Your task to perform on an android device: uninstall "Google Drive" Image 0: 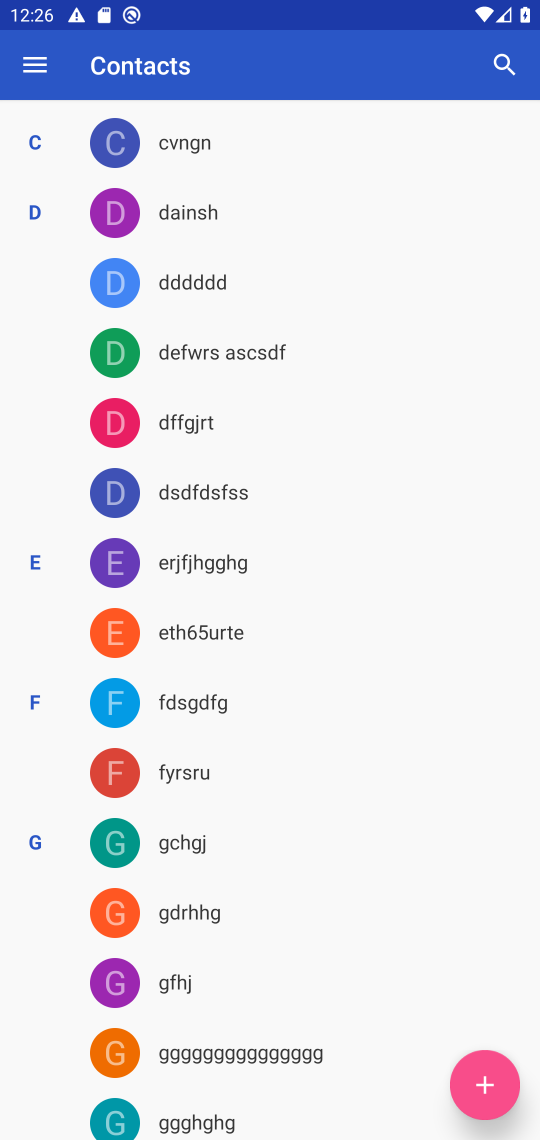
Step 0: press home button
Your task to perform on an android device: uninstall "Google Drive" Image 1: 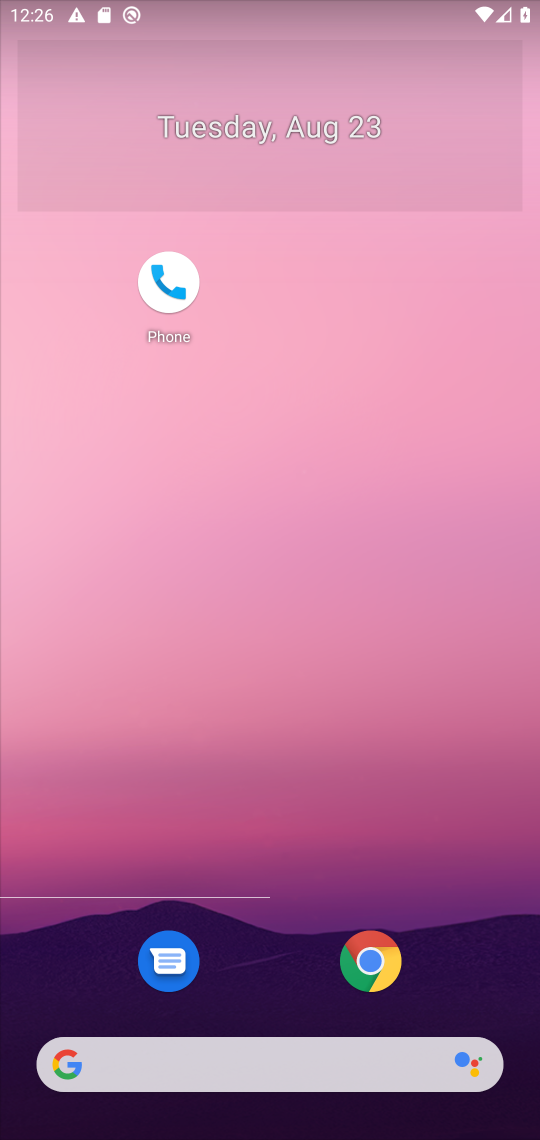
Step 1: drag from (247, 978) to (323, 254)
Your task to perform on an android device: uninstall "Google Drive" Image 2: 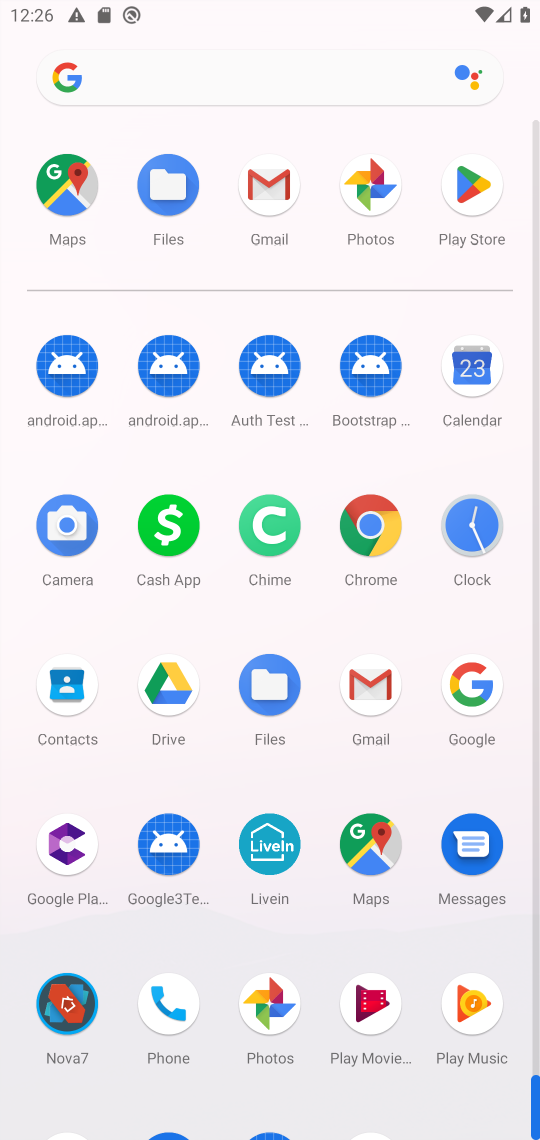
Step 2: click (182, 681)
Your task to perform on an android device: uninstall "Google Drive" Image 3: 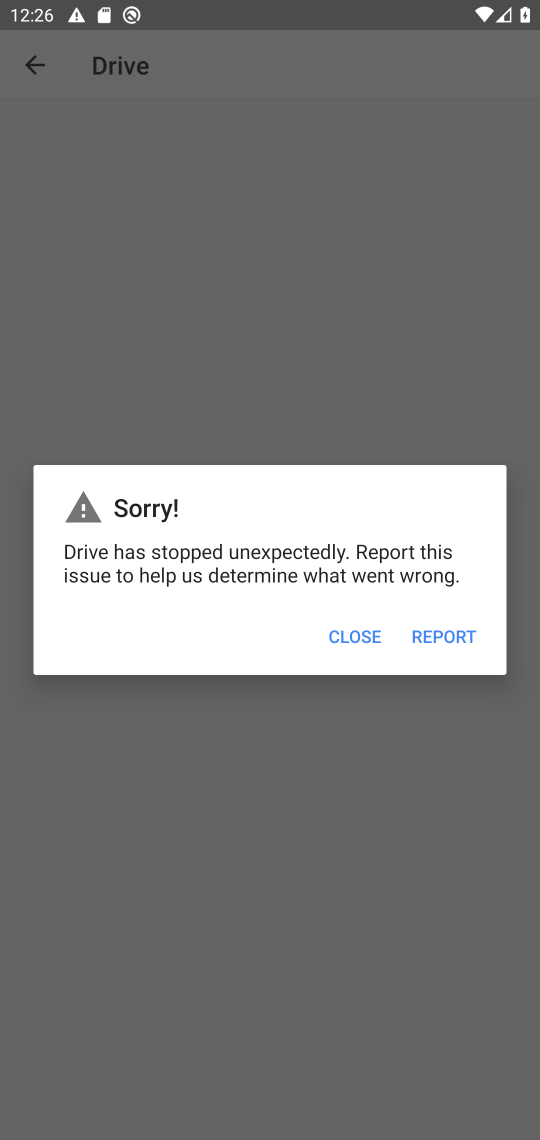
Step 3: task complete